Your task to perform on an android device: Open Google Chrome and click the shortcut for Amazon.com Image 0: 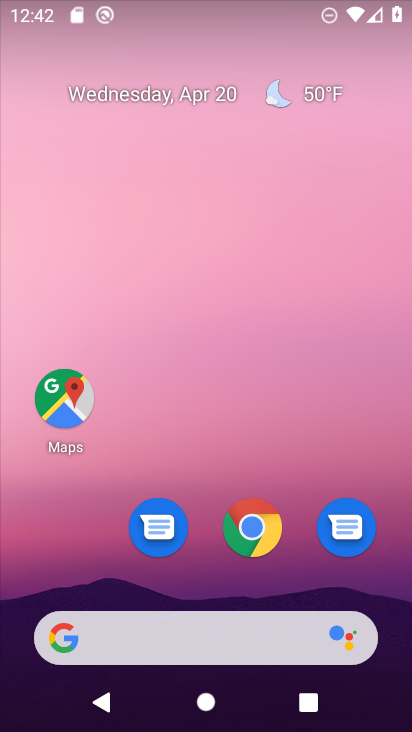
Step 0: press home button
Your task to perform on an android device: Open Google Chrome and click the shortcut for Amazon.com Image 1: 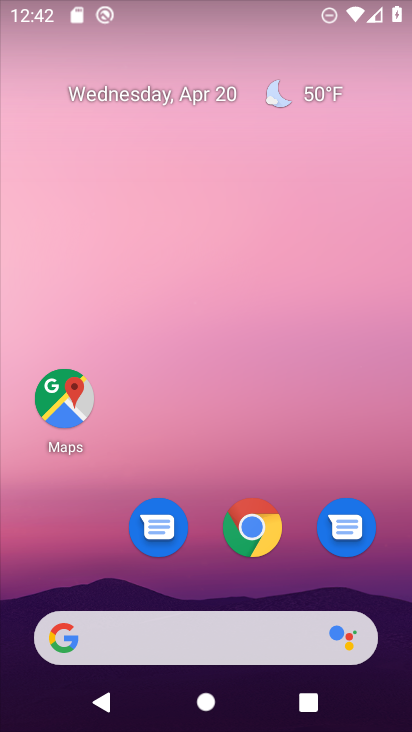
Step 1: click (254, 537)
Your task to perform on an android device: Open Google Chrome and click the shortcut for Amazon.com Image 2: 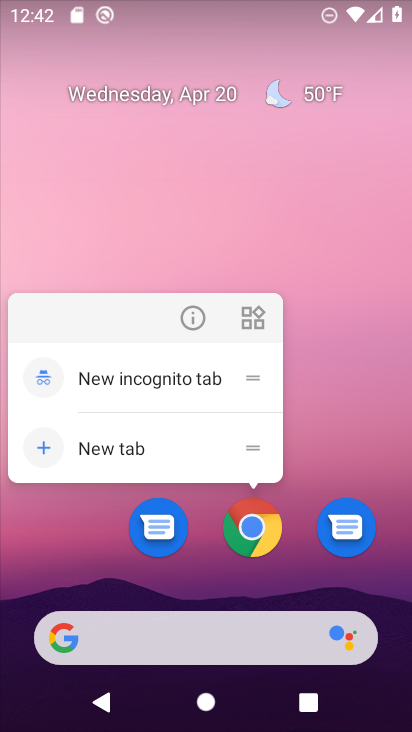
Step 2: click (254, 537)
Your task to perform on an android device: Open Google Chrome and click the shortcut for Amazon.com Image 3: 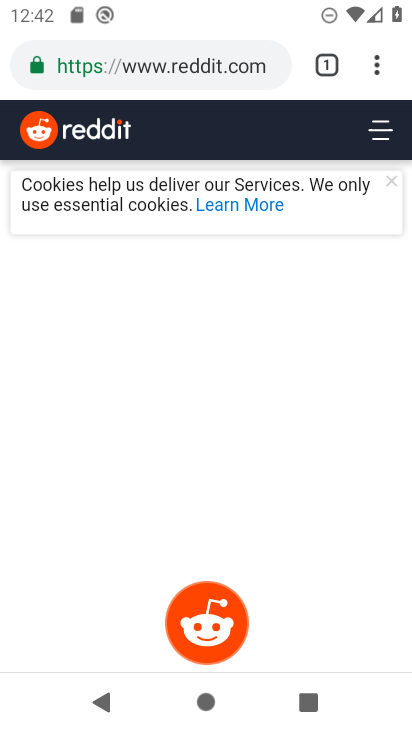
Step 3: click (379, 68)
Your task to perform on an android device: Open Google Chrome and click the shortcut for Amazon.com Image 4: 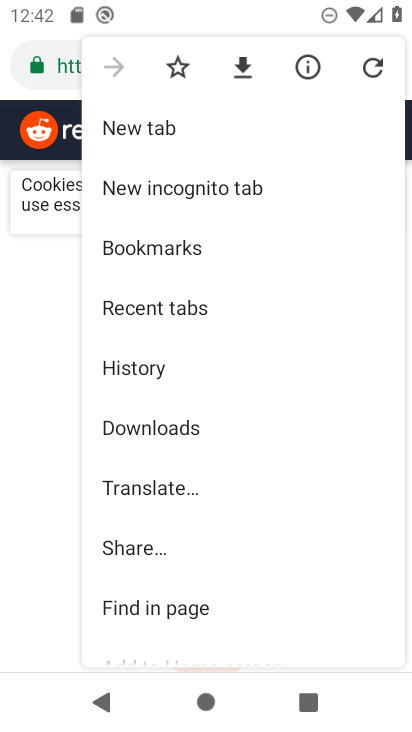
Step 4: click (153, 136)
Your task to perform on an android device: Open Google Chrome and click the shortcut for Amazon.com Image 5: 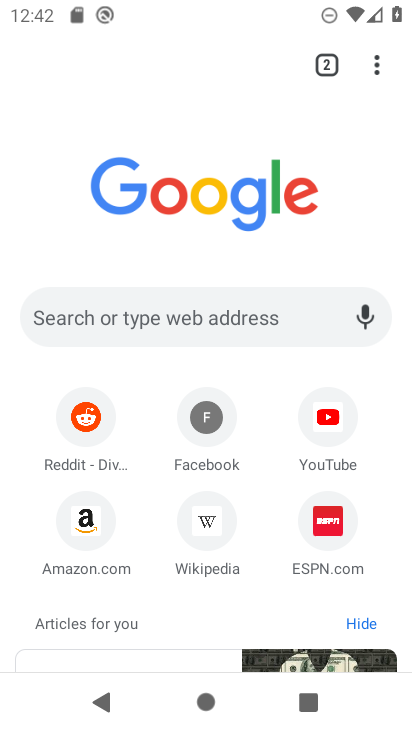
Step 5: click (83, 514)
Your task to perform on an android device: Open Google Chrome and click the shortcut for Amazon.com Image 6: 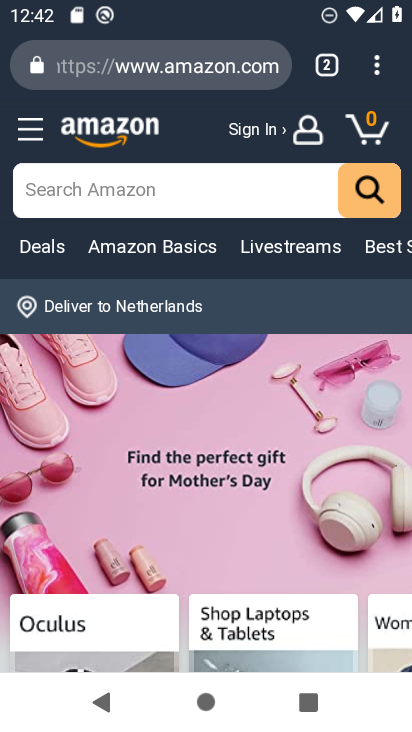
Step 6: task complete